Your task to perform on an android device: delete the emails in spam in the gmail app Image 0: 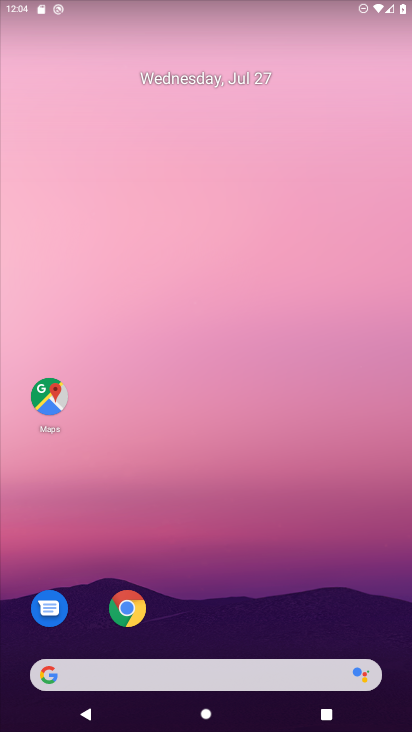
Step 0: drag from (331, 598) to (341, 105)
Your task to perform on an android device: delete the emails in spam in the gmail app Image 1: 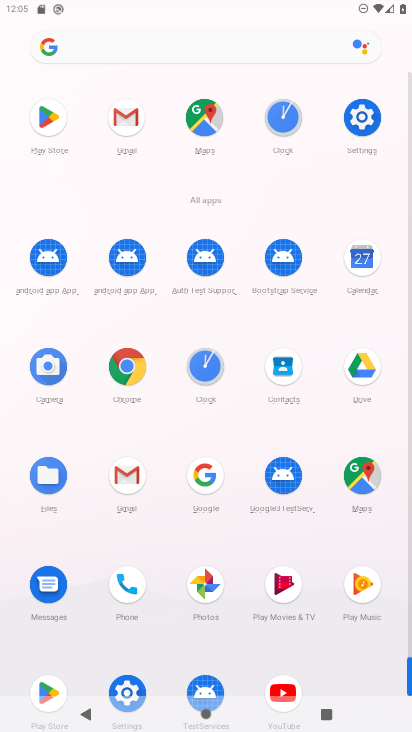
Step 1: click (124, 482)
Your task to perform on an android device: delete the emails in spam in the gmail app Image 2: 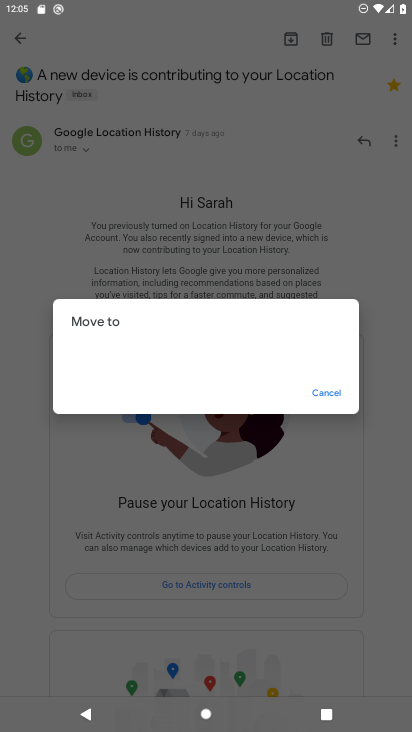
Step 2: click (324, 394)
Your task to perform on an android device: delete the emails in spam in the gmail app Image 3: 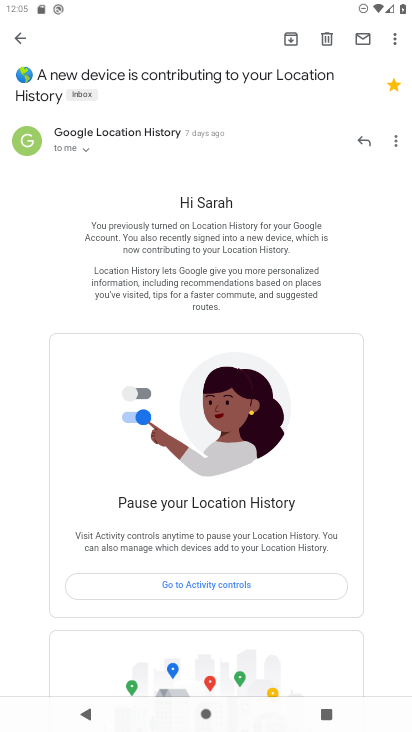
Step 3: press back button
Your task to perform on an android device: delete the emails in spam in the gmail app Image 4: 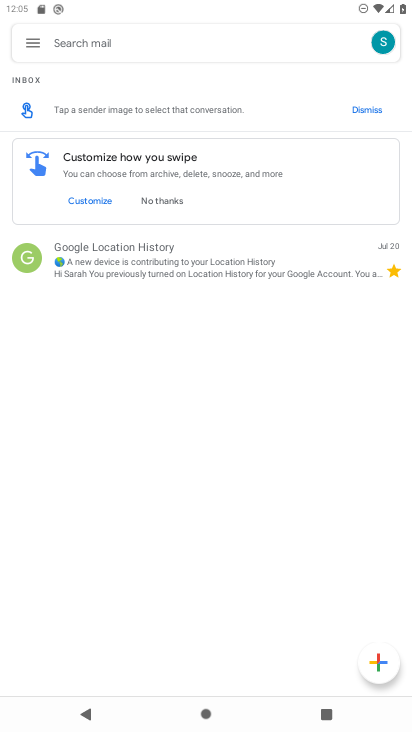
Step 4: click (32, 48)
Your task to perform on an android device: delete the emails in spam in the gmail app Image 5: 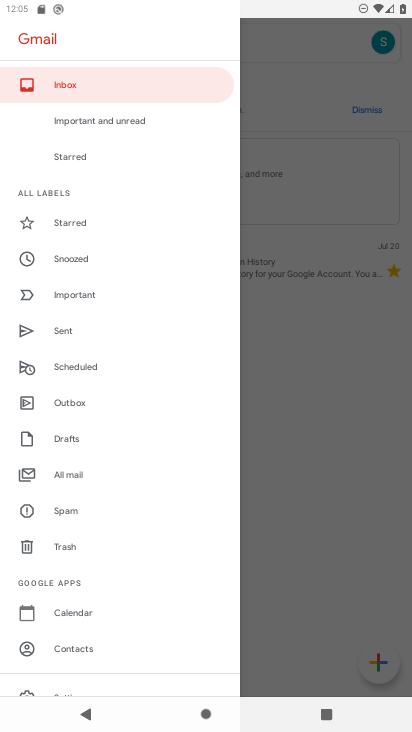
Step 5: drag from (167, 387) to (173, 343)
Your task to perform on an android device: delete the emails in spam in the gmail app Image 6: 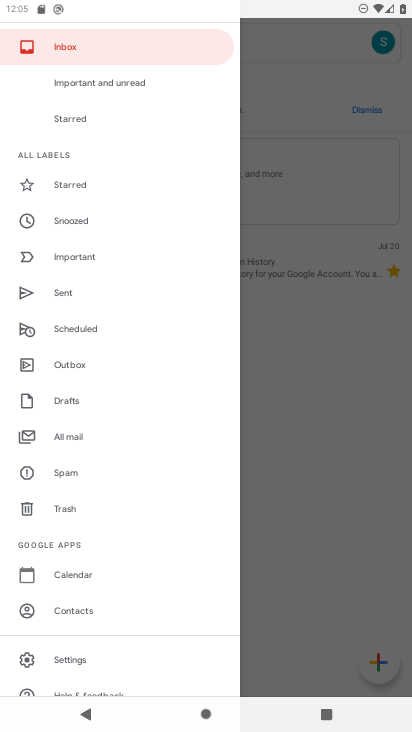
Step 6: drag from (173, 518) to (174, 439)
Your task to perform on an android device: delete the emails in spam in the gmail app Image 7: 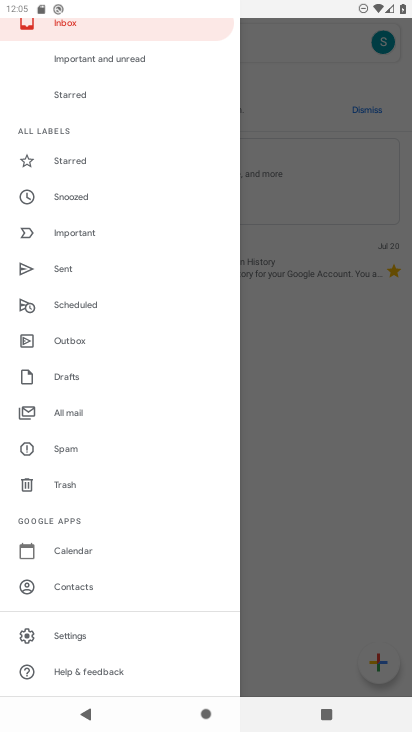
Step 7: click (77, 448)
Your task to perform on an android device: delete the emails in spam in the gmail app Image 8: 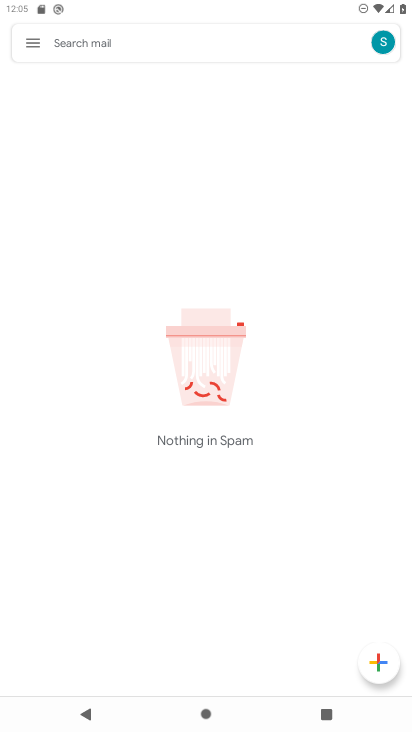
Step 8: task complete